Your task to perform on an android device: see creations saved in the google photos Image 0: 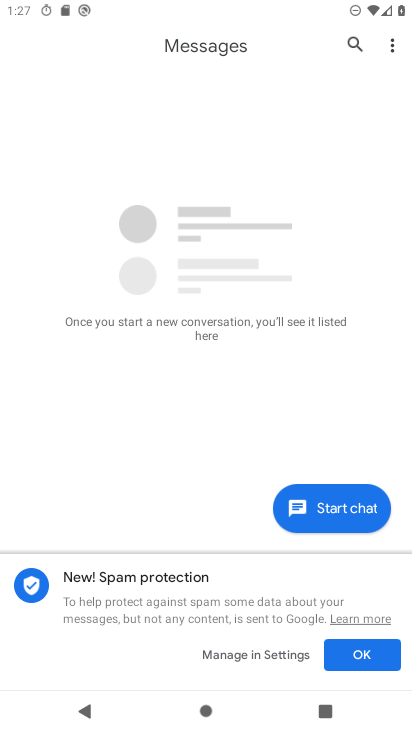
Step 0: press home button
Your task to perform on an android device: see creations saved in the google photos Image 1: 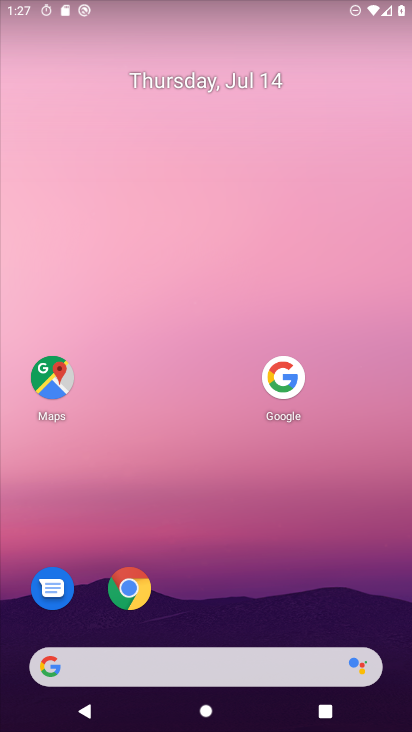
Step 1: drag from (138, 658) to (314, 47)
Your task to perform on an android device: see creations saved in the google photos Image 2: 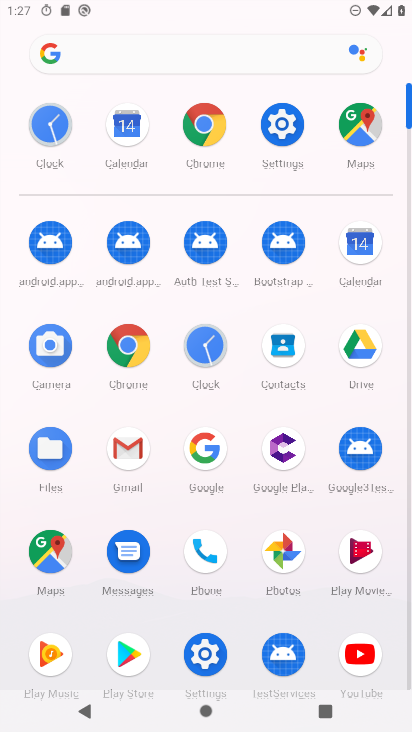
Step 2: click (287, 551)
Your task to perform on an android device: see creations saved in the google photos Image 3: 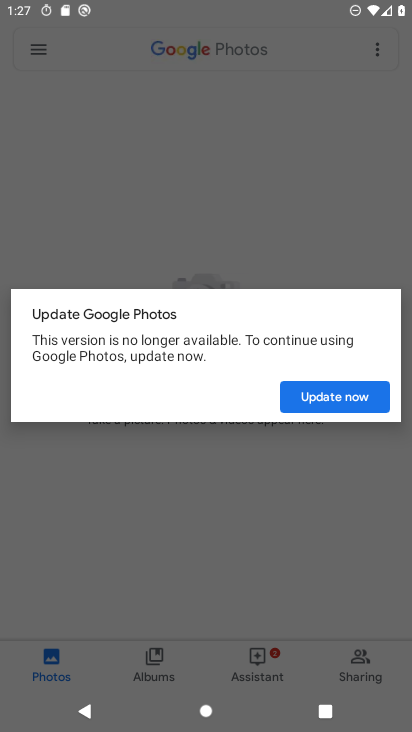
Step 3: click (342, 397)
Your task to perform on an android device: see creations saved in the google photos Image 4: 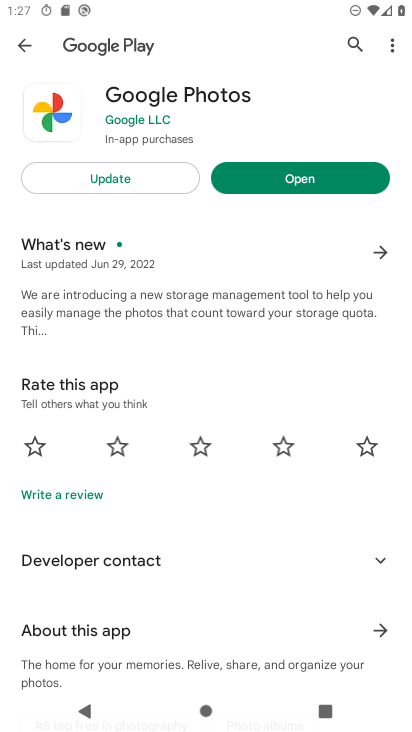
Step 4: click (138, 181)
Your task to perform on an android device: see creations saved in the google photos Image 5: 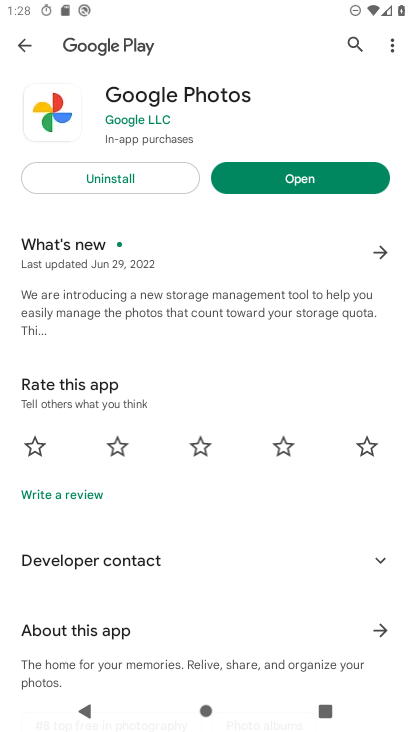
Step 5: click (324, 183)
Your task to perform on an android device: see creations saved in the google photos Image 6: 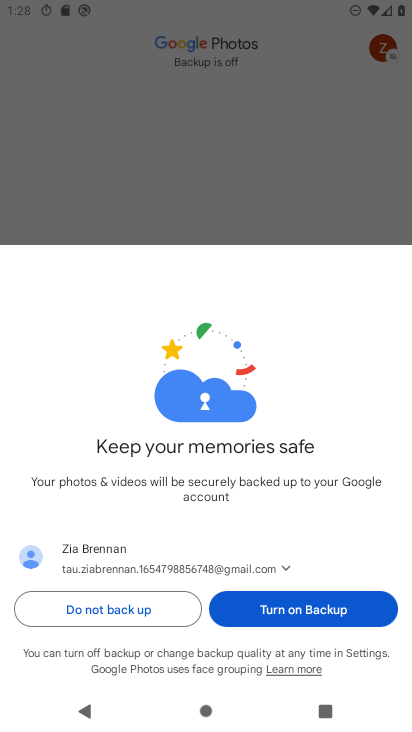
Step 6: click (304, 609)
Your task to perform on an android device: see creations saved in the google photos Image 7: 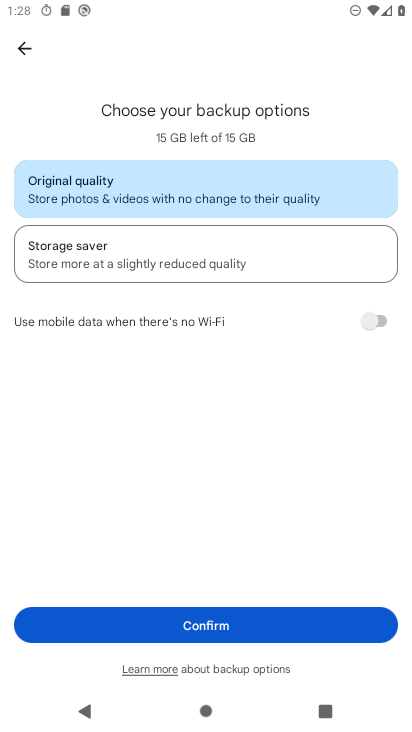
Step 7: click (237, 630)
Your task to perform on an android device: see creations saved in the google photos Image 8: 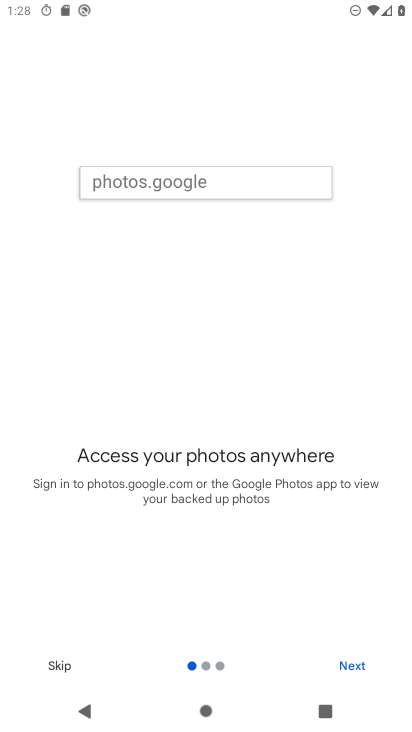
Step 8: click (347, 669)
Your task to perform on an android device: see creations saved in the google photos Image 9: 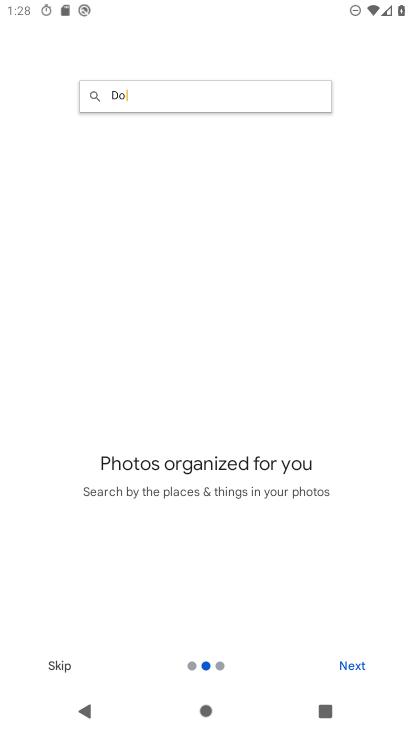
Step 9: click (347, 668)
Your task to perform on an android device: see creations saved in the google photos Image 10: 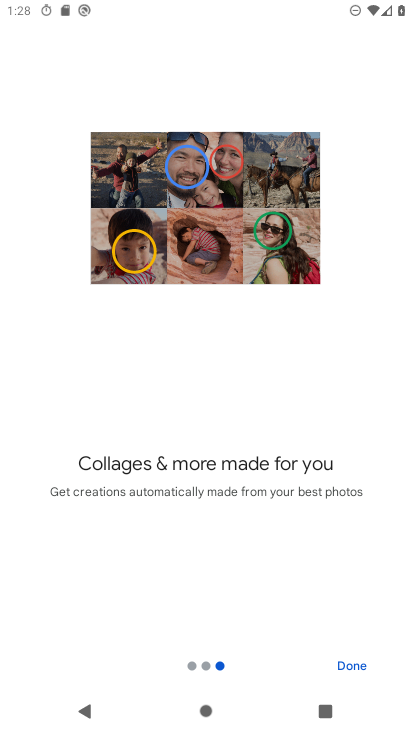
Step 10: click (347, 668)
Your task to perform on an android device: see creations saved in the google photos Image 11: 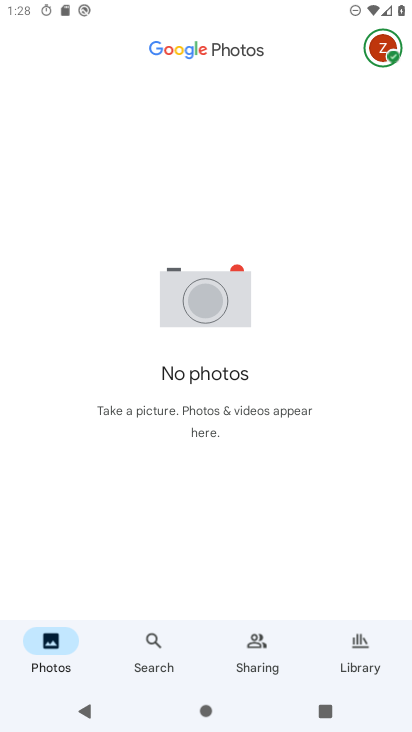
Step 11: click (157, 639)
Your task to perform on an android device: see creations saved in the google photos Image 12: 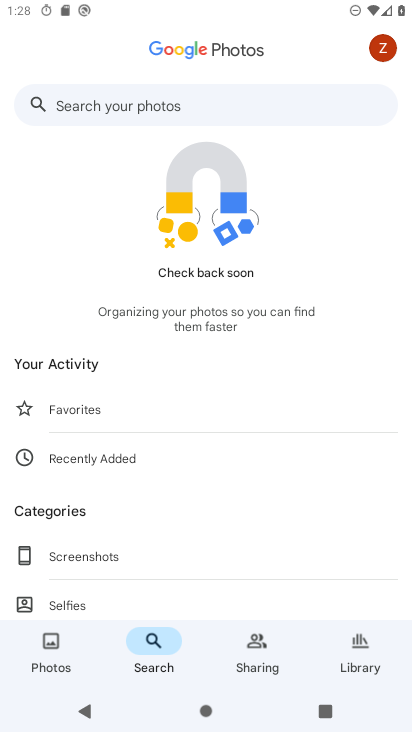
Step 12: drag from (177, 526) to (343, 105)
Your task to perform on an android device: see creations saved in the google photos Image 13: 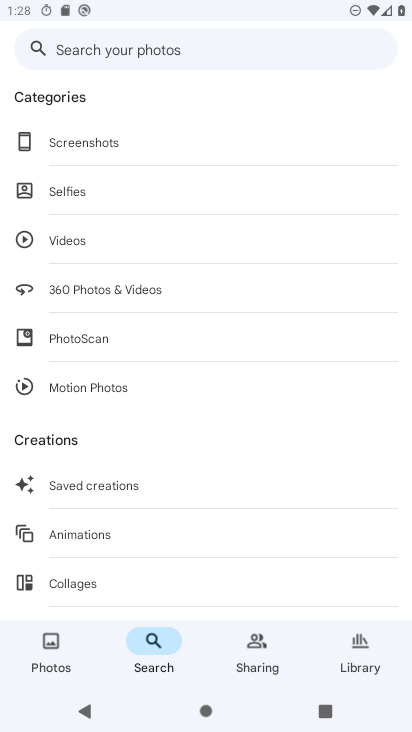
Step 13: click (122, 482)
Your task to perform on an android device: see creations saved in the google photos Image 14: 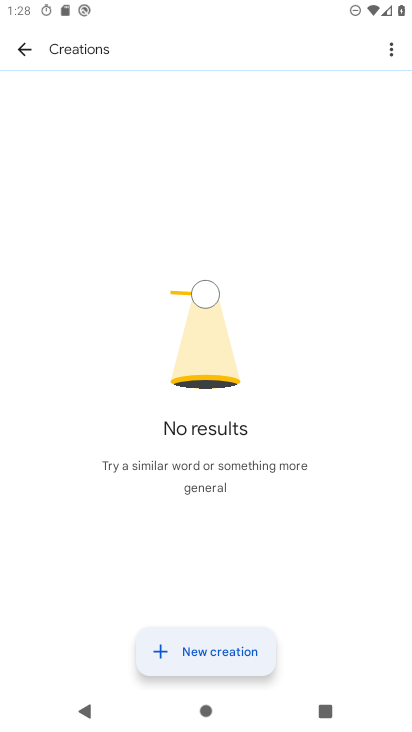
Step 14: task complete